Your task to perform on an android device: Open the phone app and click the voicemail tab. Image 0: 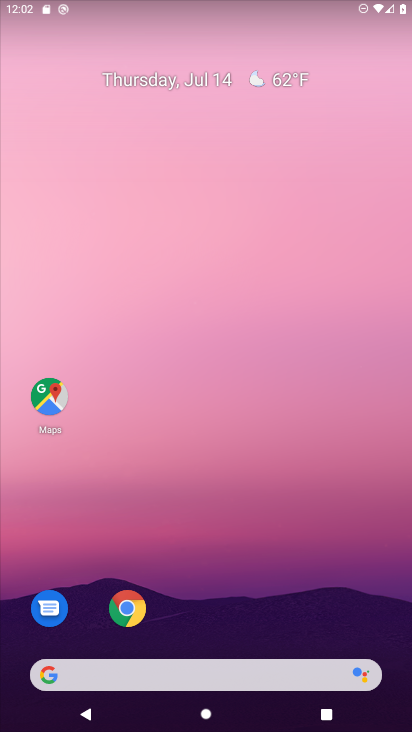
Step 0: drag from (247, 599) to (267, 170)
Your task to perform on an android device: Open the phone app and click the voicemail tab. Image 1: 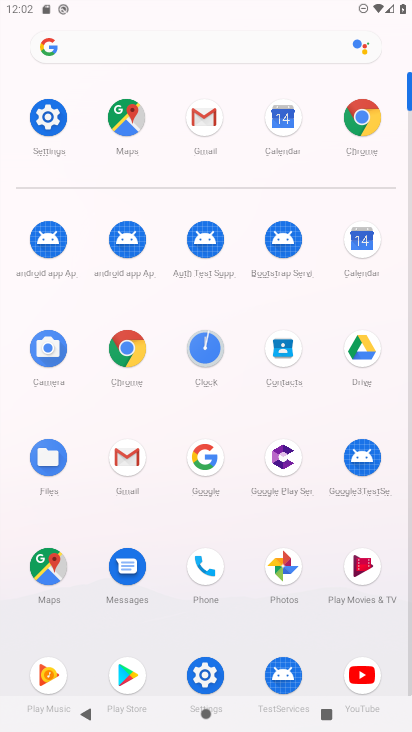
Step 1: click (203, 568)
Your task to perform on an android device: Open the phone app and click the voicemail tab. Image 2: 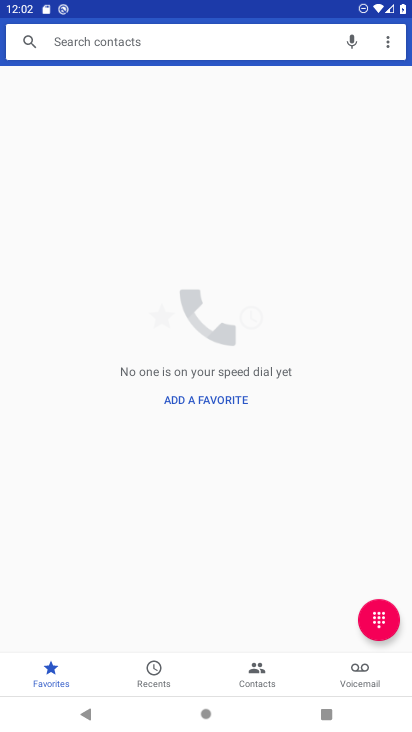
Step 2: click (366, 666)
Your task to perform on an android device: Open the phone app and click the voicemail tab. Image 3: 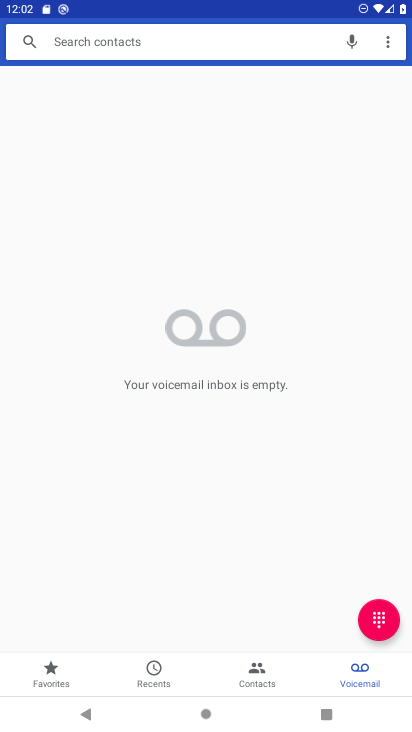
Step 3: task complete